Your task to perform on an android device: Open the calendar app, open the side menu, and click the "Day" option Image 0: 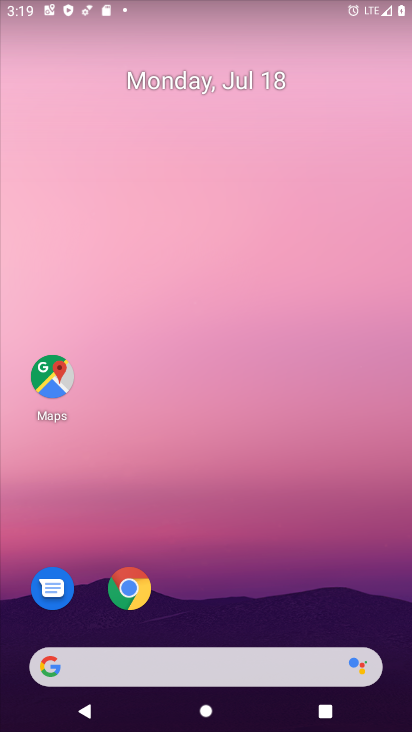
Step 0: drag from (225, 590) to (267, 51)
Your task to perform on an android device: Open the calendar app, open the side menu, and click the "Day" option Image 1: 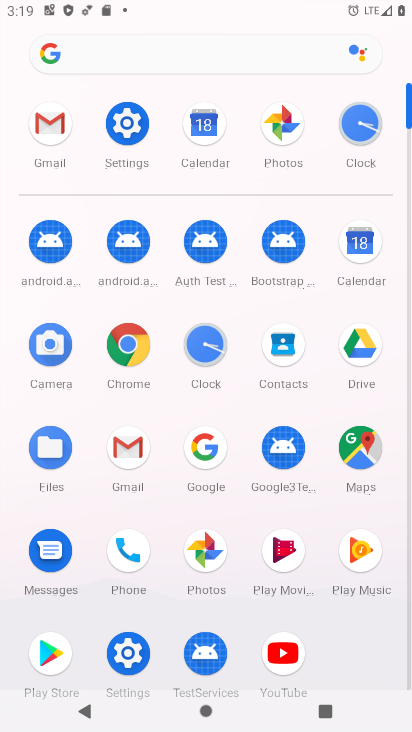
Step 1: click (348, 252)
Your task to perform on an android device: Open the calendar app, open the side menu, and click the "Day" option Image 2: 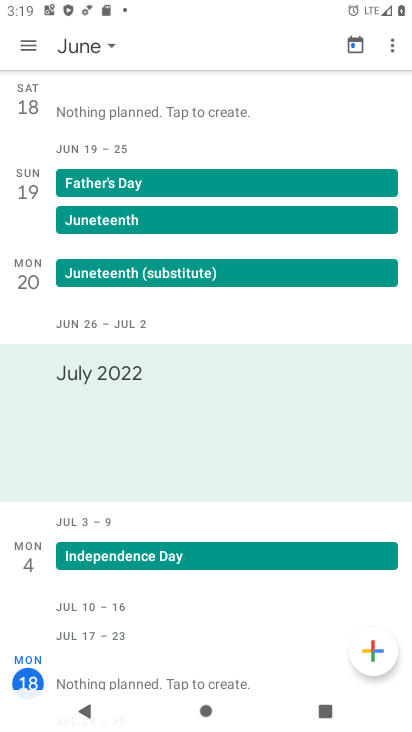
Step 2: click (39, 36)
Your task to perform on an android device: Open the calendar app, open the side menu, and click the "Day" option Image 3: 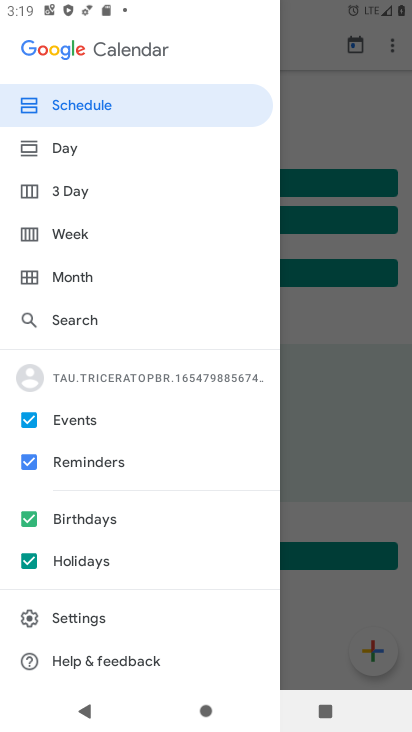
Step 3: click (45, 143)
Your task to perform on an android device: Open the calendar app, open the side menu, and click the "Day" option Image 4: 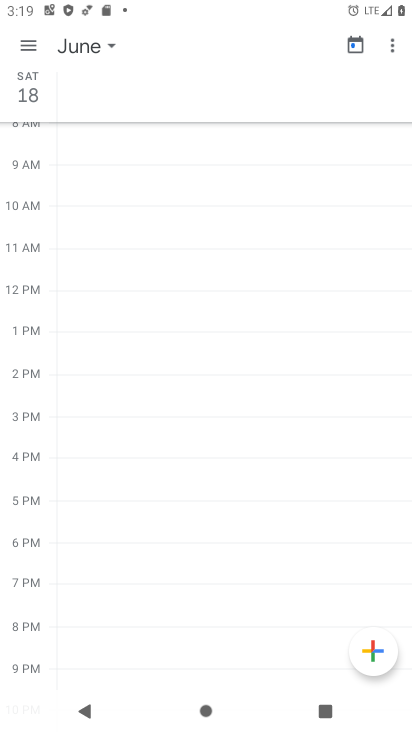
Step 4: click (1, 33)
Your task to perform on an android device: Open the calendar app, open the side menu, and click the "Day" option Image 5: 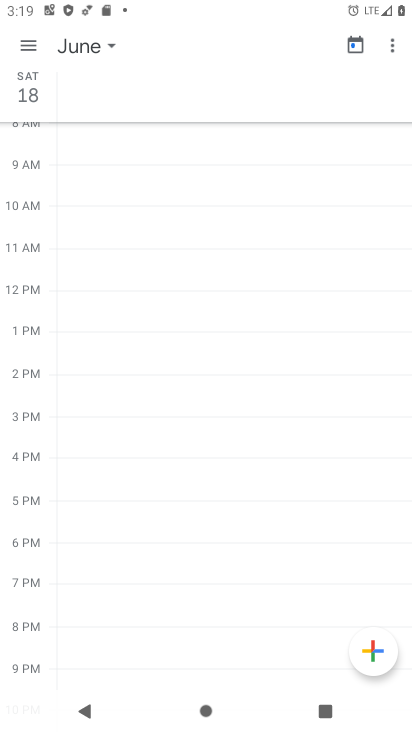
Step 5: click (18, 36)
Your task to perform on an android device: Open the calendar app, open the side menu, and click the "Day" option Image 6: 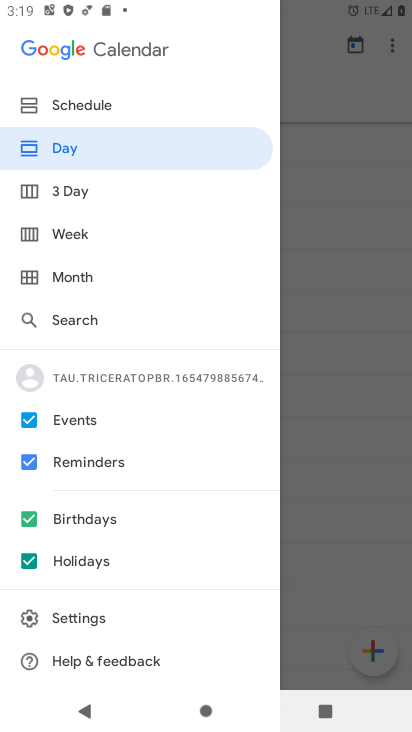
Step 6: click (68, 138)
Your task to perform on an android device: Open the calendar app, open the side menu, and click the "Day" option Image 7: 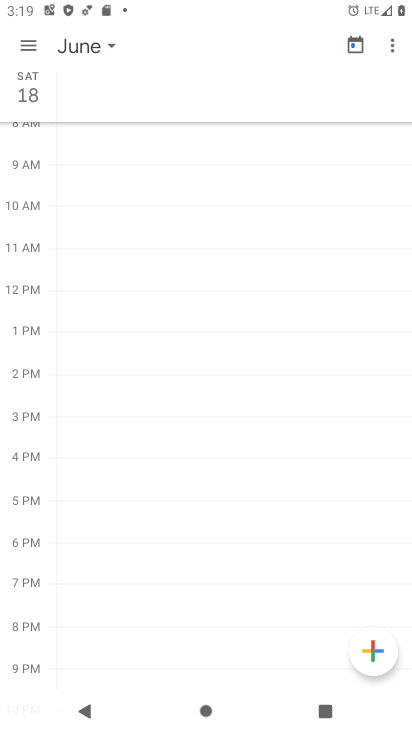
Step 7: task complete